Your task to perform on an android device: What is the recent news? Image 0: 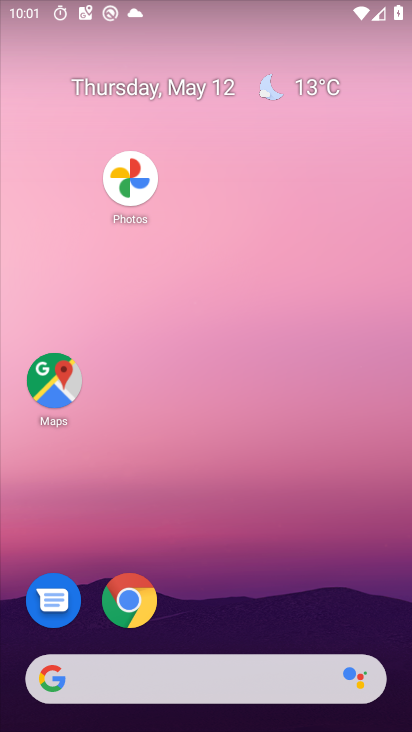
Step 0: drag from (274, 624) to (148, 171)
Your task to perform on an android device: What is the recent news? Image 1: 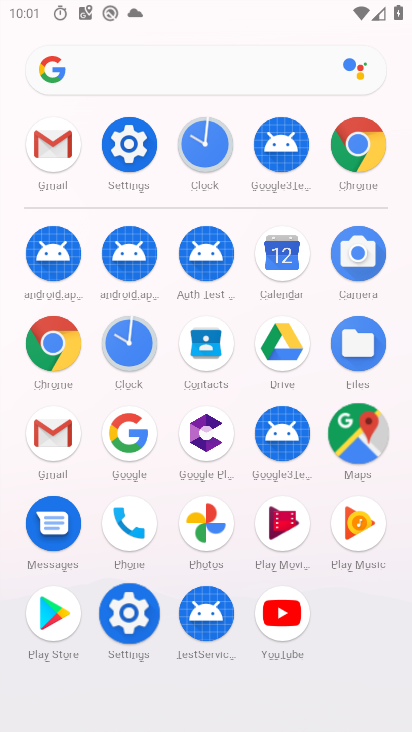
Step 1: drag from (233, 422) to (223, 23)
Your task to perform on an android device: What is the recent news? Image 2: 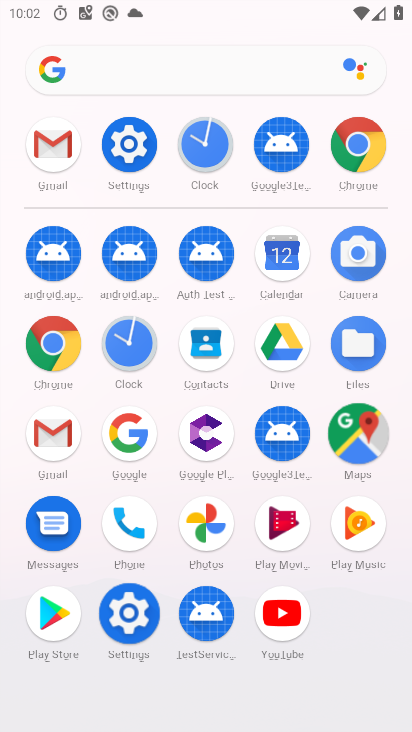
Step 2: press back button
Your task to perform on an android device: What is the recent news? Image 3: 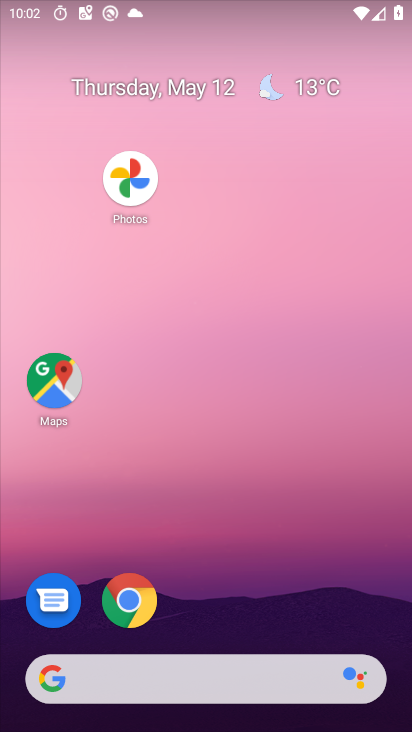
Step 3: drag from (21, 263) to (399, 382)
Your task to perform on an android device: What is the recent news? Image 4: 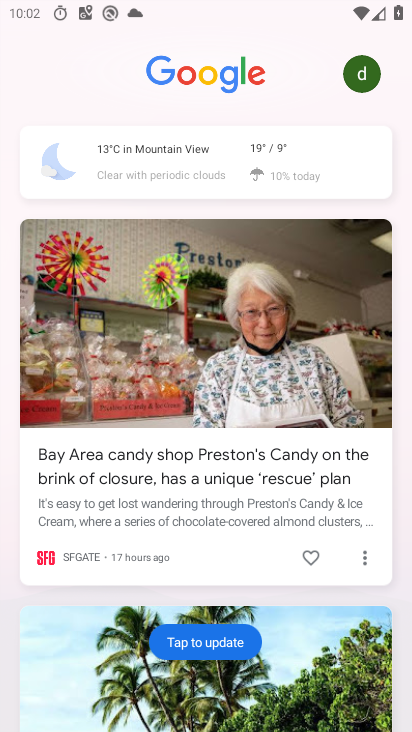
Step 4: click (166, 174)
Your task to perform on an android device: What is the recent news? Image 5: 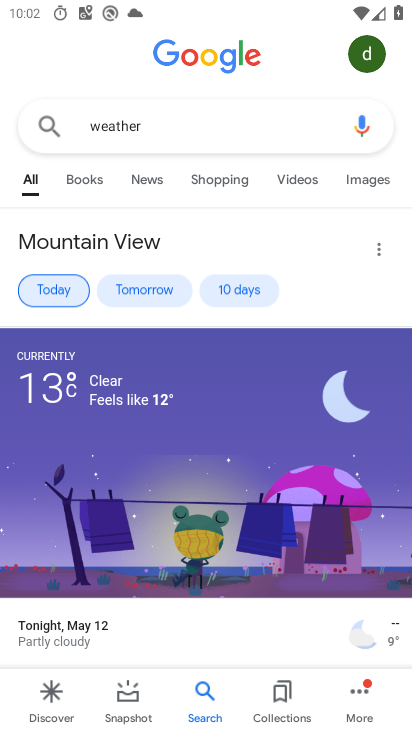
Step 5: click (154, 134)
Your task to perform on an android device: What is the recent news? Image 6: 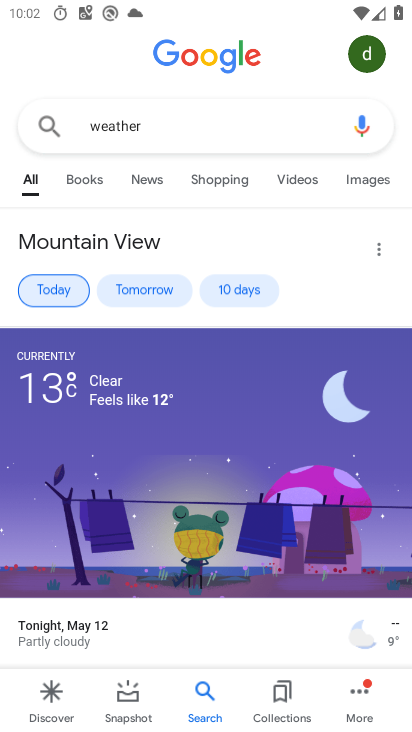
Step 6: click (156, 132)
Your task to perform on an android device: What is the recent news? Image 7: 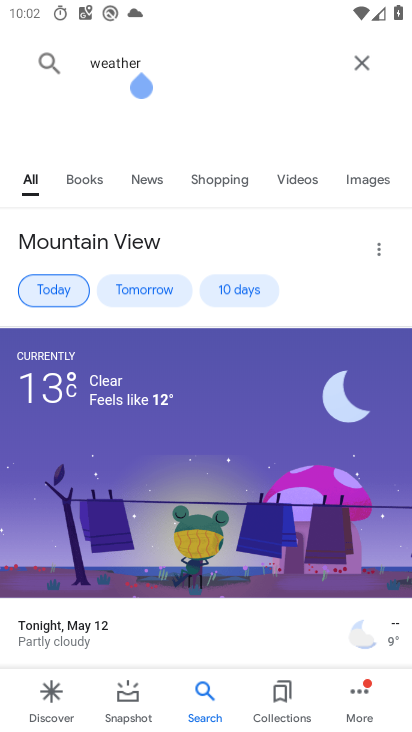
Step 7: click (162, 127)
Your task to perform on an android device: What is the recent news? Image 8: 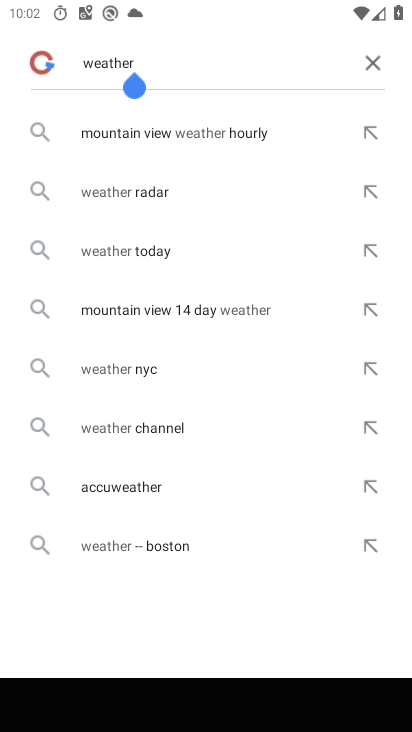
Step 8: click (164, 125)
Your task to perform on an android device: What is the recent news? Image 9: 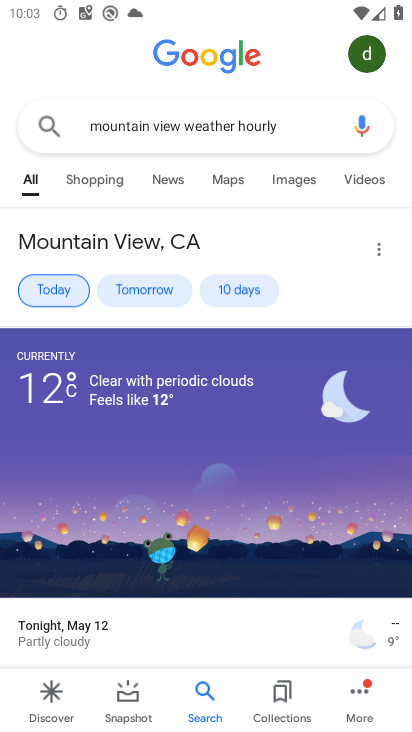
Step 9: click (145, 290)
Your task to perform on an android device: What is the recent news? Image 10: 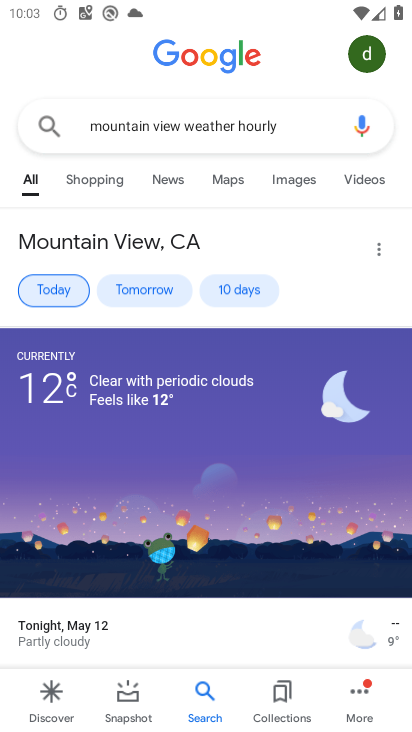
Step 10: click (145, 289)
Your task to perform on an android device: What is the recent news? Image 11: 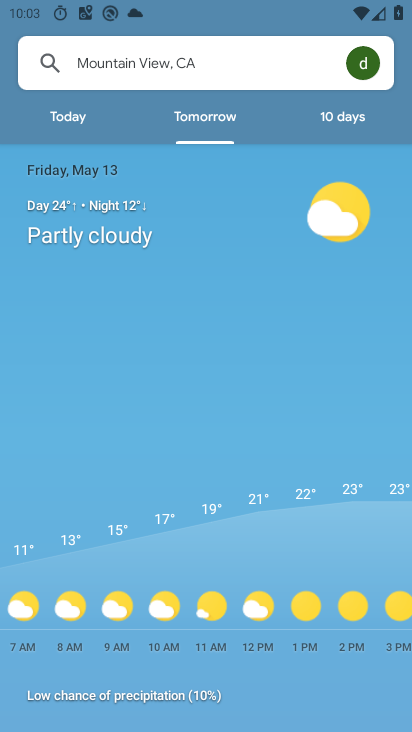
Step 11: task complete